Your task to perform on an android device: check data usage Image 0: 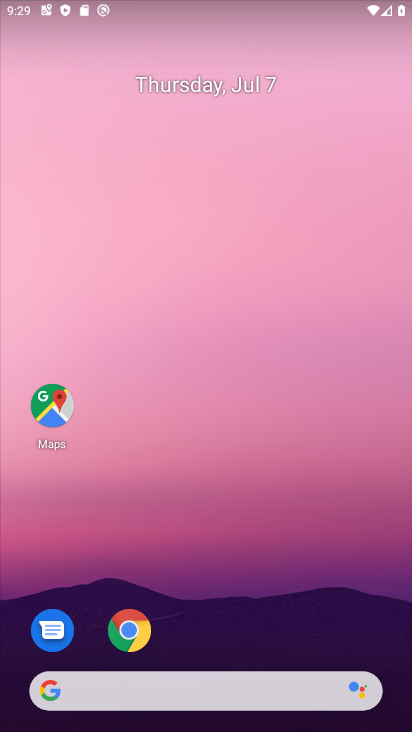
Step 0: click (190, 528)
Your task to perform on an android device: check data usage Image 1: 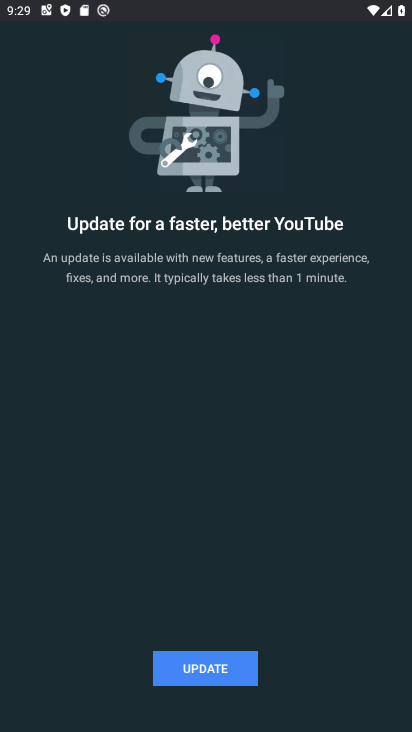
Step 1: press home button
Your task to perform on an android device: check data usage Image 2: 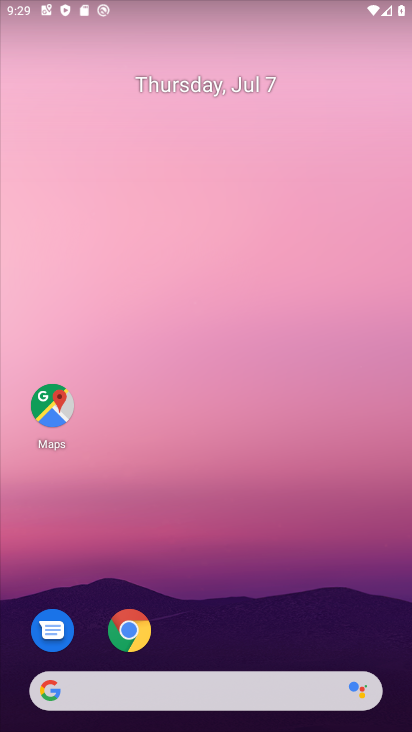
Step 2: drag from (198, 666) to (206, 391)
Your task to perform on an android device: check data usage Image 3: 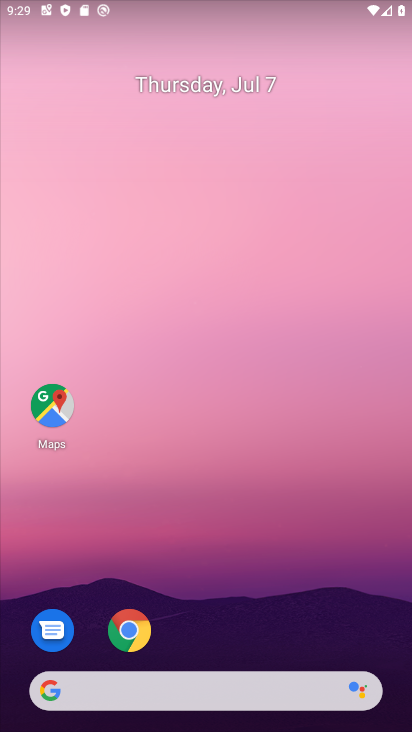
Step 3: drag from (207, 668) to (246, 250)
Your task to perform on an android device: check data usage Image 4: 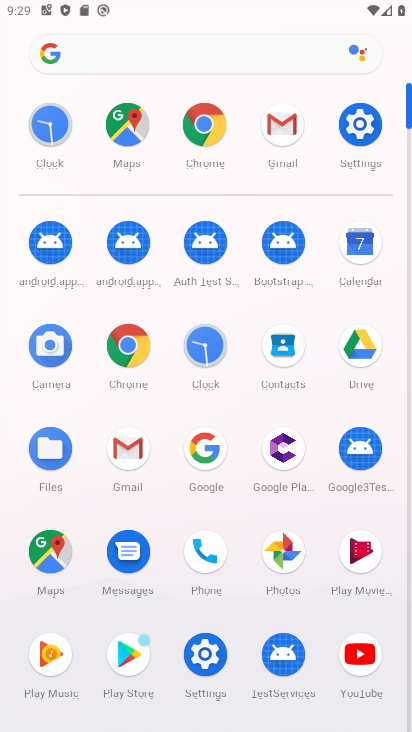
Step 4: click (346, 128)
Your task to perform on an android device: check data usage Image 5: 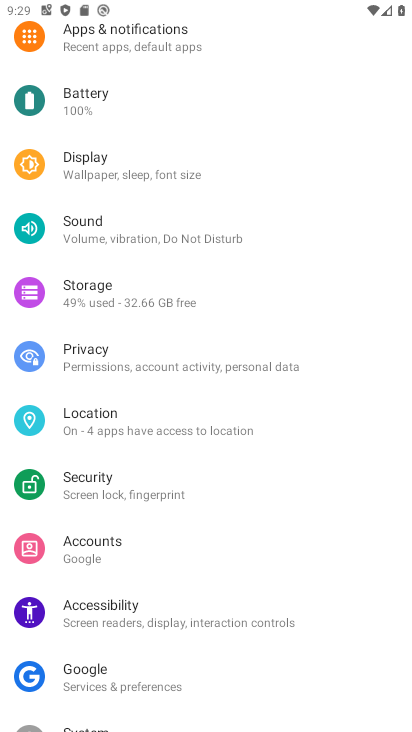
Step 5: drag from (223, 74) to (305, 430)
Your task to perform on an android device: check data usage Image 6: 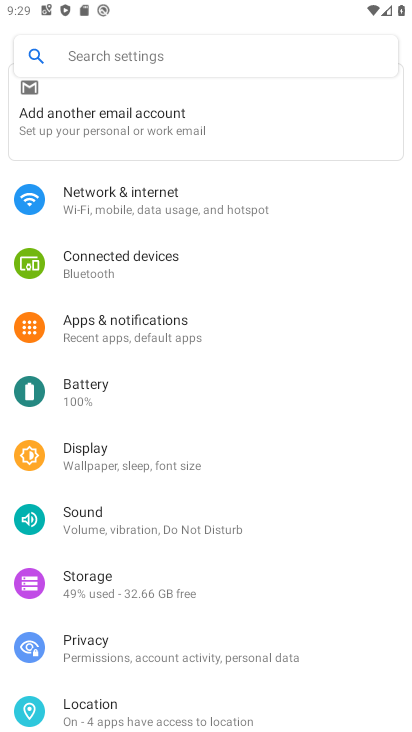
Step 6: click (176, 204)
Your task to perform on an android device: check data usage Image 7: 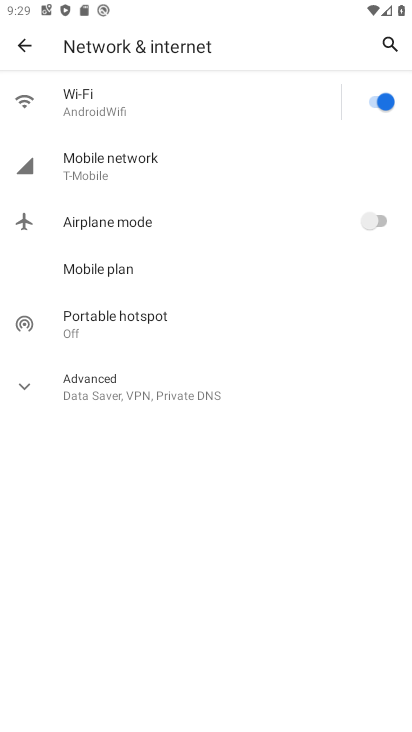
Step 7: click (141, 167)
Your task to perform on an android device: check data usage Image 8: 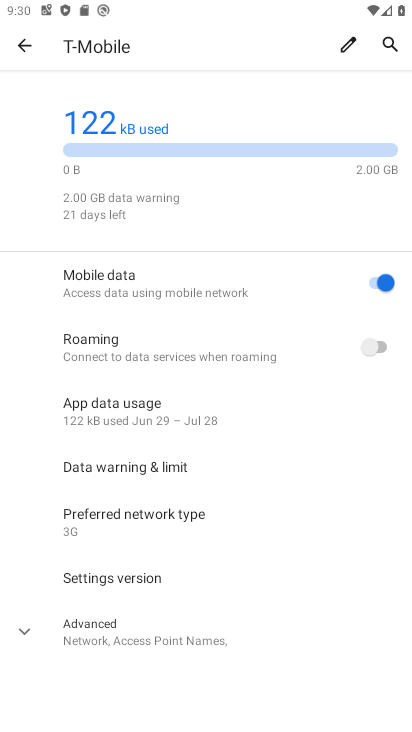
Step 8: task complete